Your task to perform on an android device: open app "Google Find My Device" (install if not already installed) Image 0: 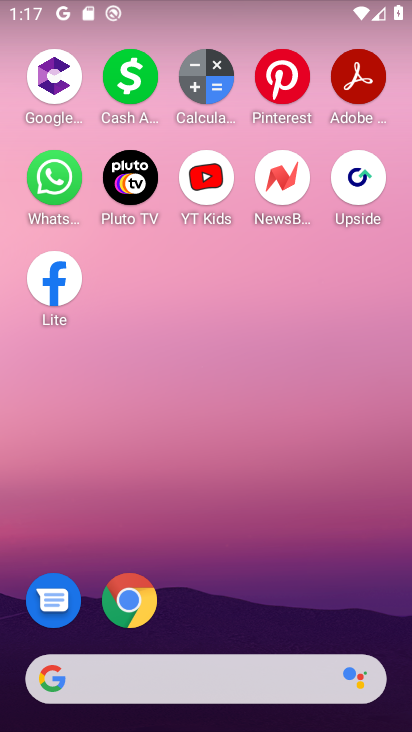
Step 0: drag from (230, 640) to (218, 115)
Your task to perform on an android device: open app "Google Find My Device" (install if not already installed) Image 1: 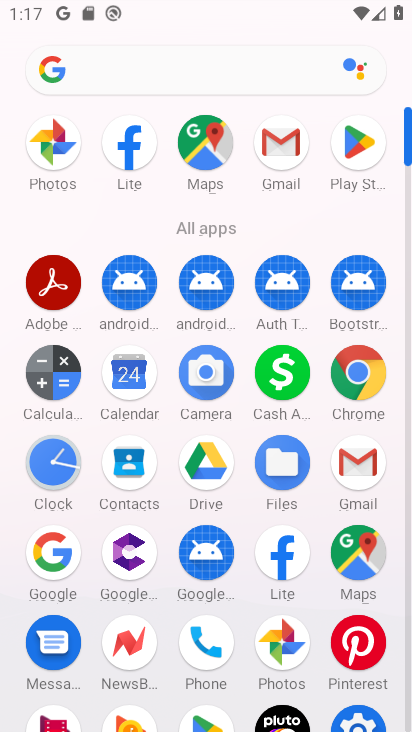
Step 1: click (356, 142)
Your task to perform on an android device: open app "Google Find My Device" (install if not already installed) Image 2: 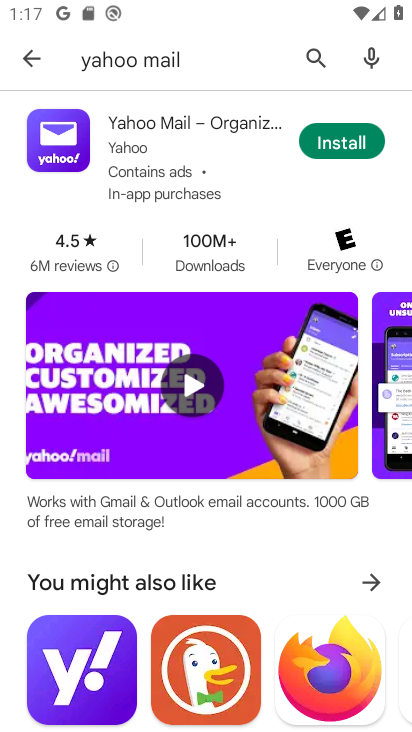
Step 2: click (316, 52)
Your task to perform on an android device: open app "Google Find My Device" (install if not already installed) Image 3: 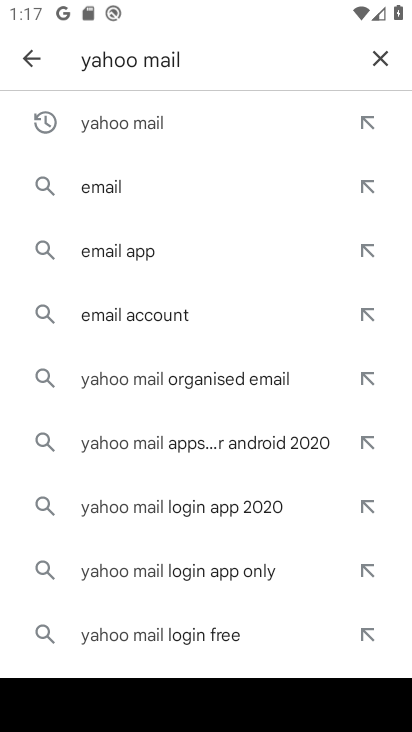
Step 3: click (385, 50)
Your task to perform on an android device: open app "Google Find My Device" (install if not already installed) Image 4: 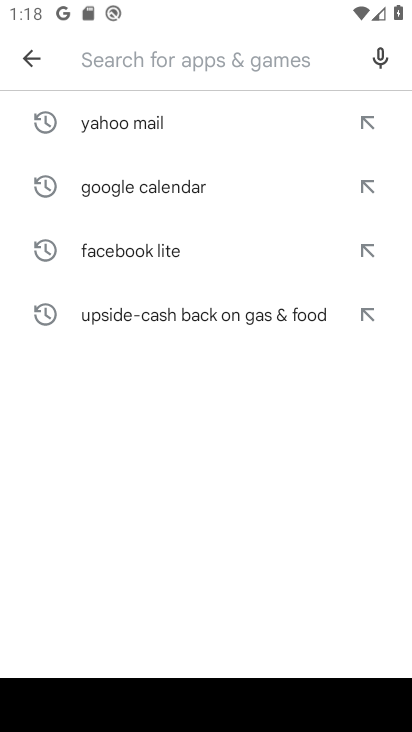
Step 4: type "Google Find My Device"
Your task to perform on an android device: open app "Google Find My Device" (install if not already installed) Image 5: 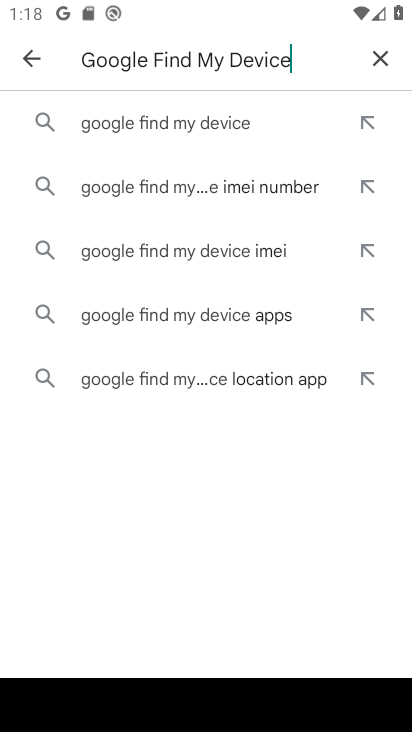
Step 5: click (176, 123)
Your task to perform on an android device: open app "Google Find My Device" (install if not already installed) Image 6: 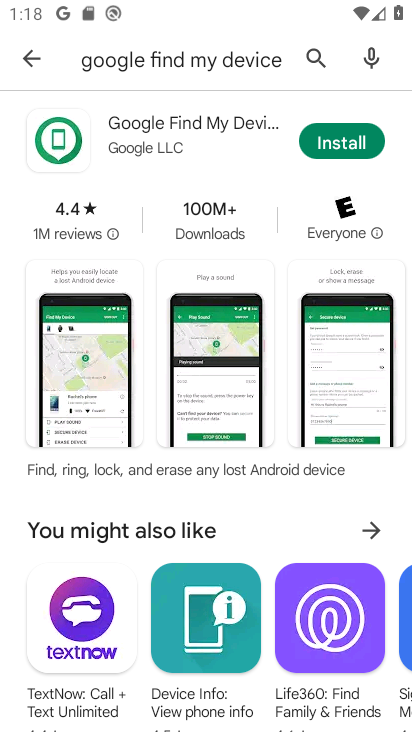
Step 6: click (326, 140)
Your task to perform on an android device: open app "Google Find My Device" (install if not already installed) Image 7: 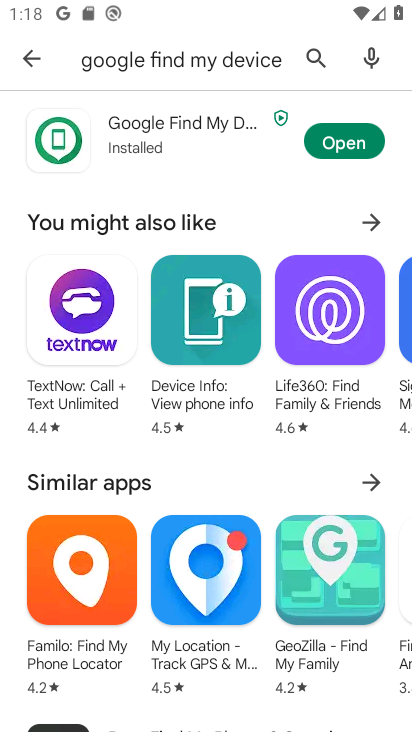
Step 7: click (342, 155)
Your task to perform on an android device: open app "Google Find My Device" (install if not already installed) Image 8: 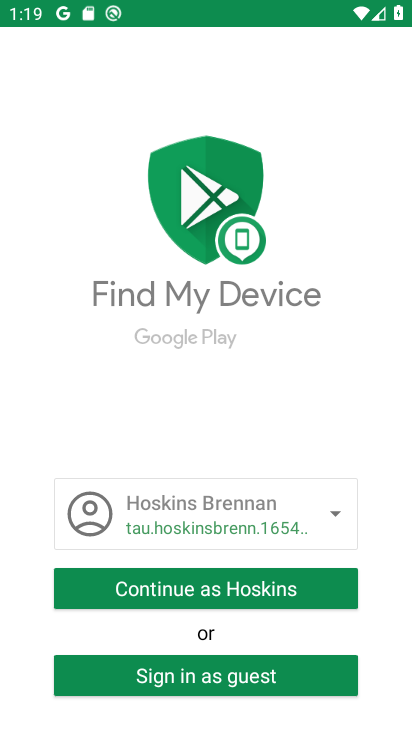
Step 8: task complete